Your task to perform on an android device: Open wifi settings Image 0: 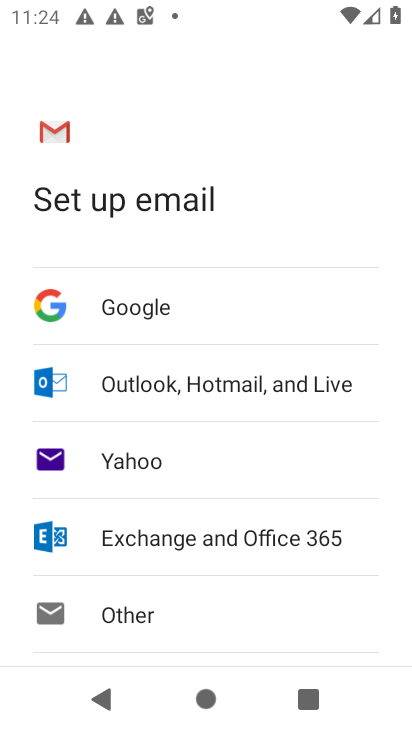
Step 0: press home button
Your task to perform on an android device: Open wifi settings Image 1: 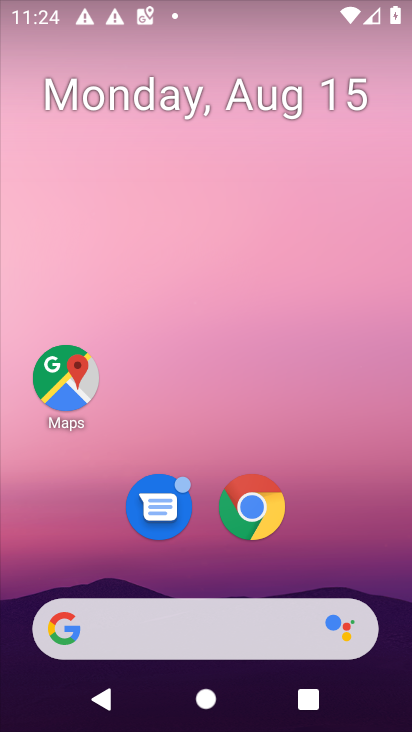
Step 1: drag from (215, 569) to (143, 225)
Your task to perform on an android device: Open wifi settings Image 2: 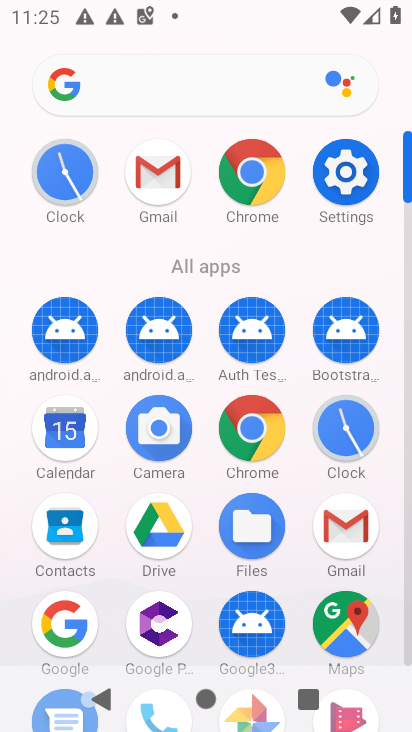
Step 2: click (346, 170)
Your task to perform on an android device: Open wifi settings Image 3: 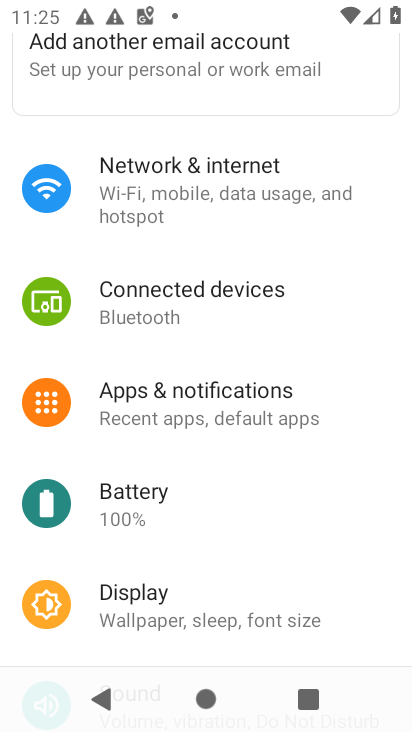
Step 3: click (198, 161)
Your task to perform on an android device: Open wifi settings Image 4: 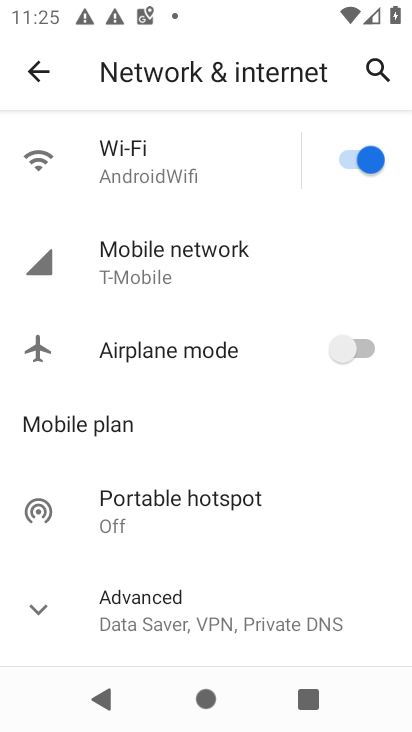
Step 4: click (134, 146)
Your task to perform on an android device: Open wifi settings Image 5: 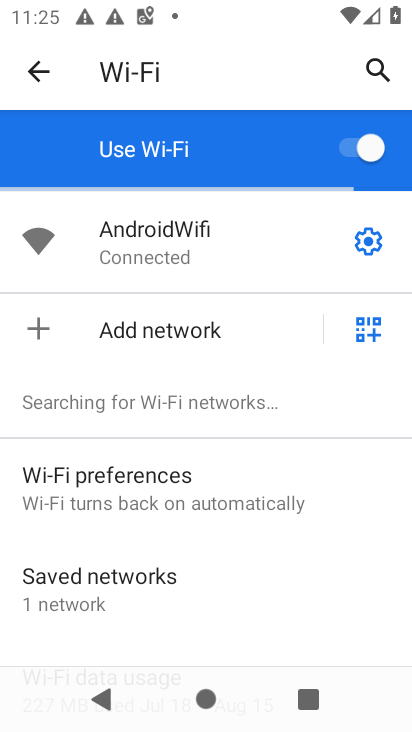
Step 5: task complete